Your task to perform on an android device: turn on sleep mode Image 0: 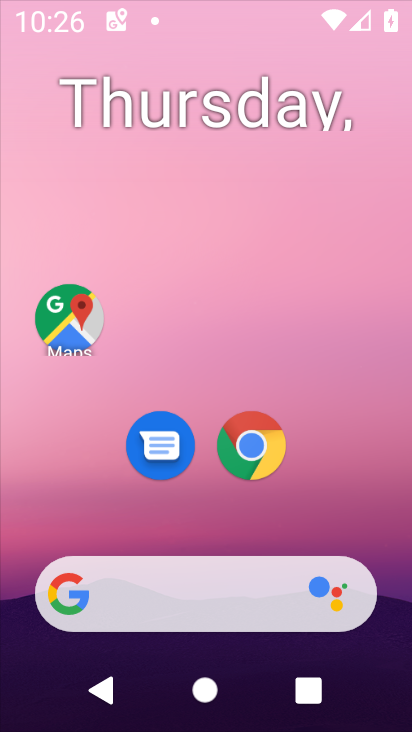
Step 0: click (241, 37)
Your task to perform on an android device: turn on sleep mode Image 1: 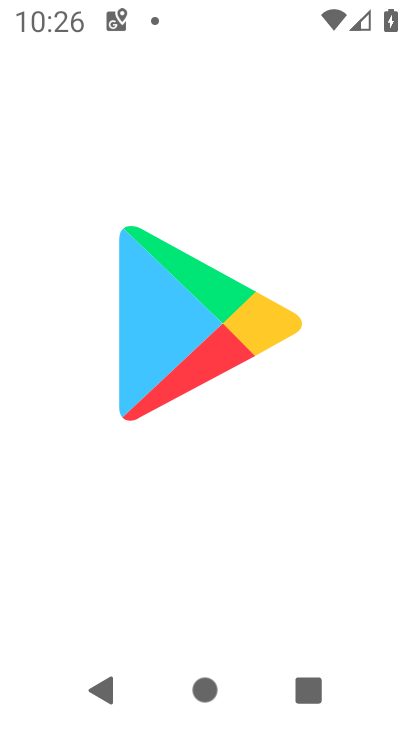
Step 1: press home button
Your task to perform on an android device: turn on sleep mode Image 2: 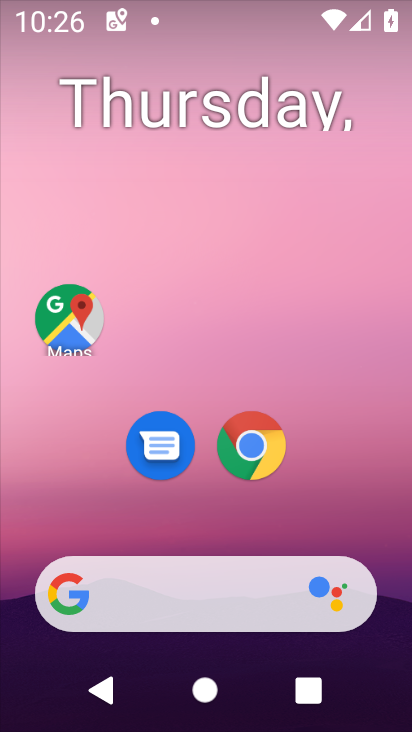
Step 2: drag from (383, 527) to (240, 29)
Your task to perform on an android device: turn on sleep mode Image 3: 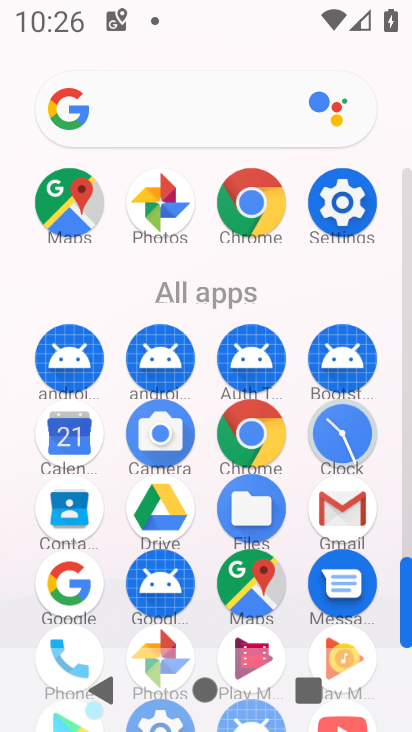
Step 3: click (329, 189)
Your task to perform on an android device: turn on sleep mode Image 4: 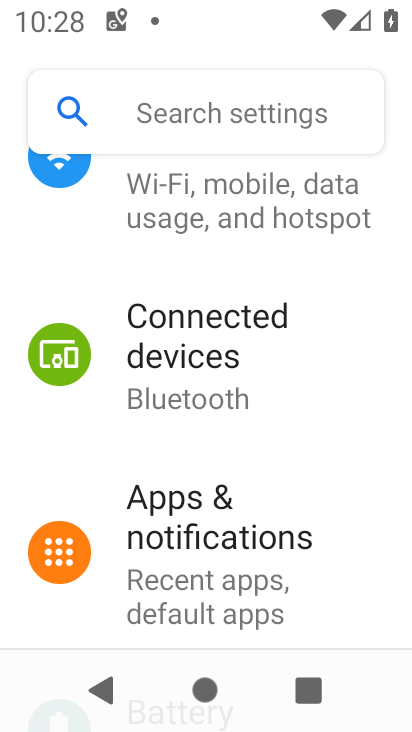
Step 4: task complete